Your task to perform on an android device: turn pop-ups on in chrome Image 0: 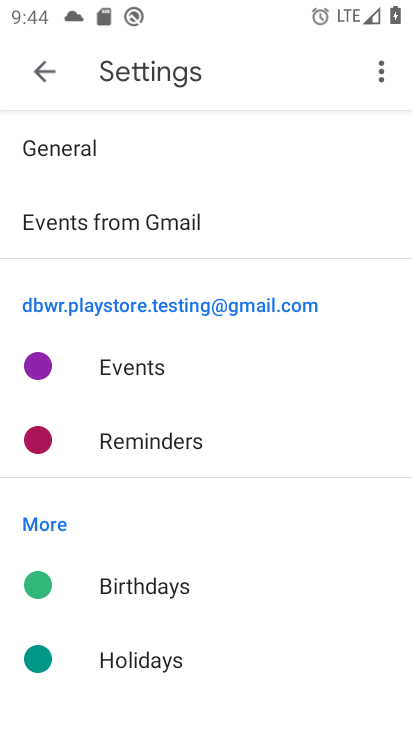
Step 0: press home button
Your task to perform on an android device: turn pop-ups on in chrome Image 1: 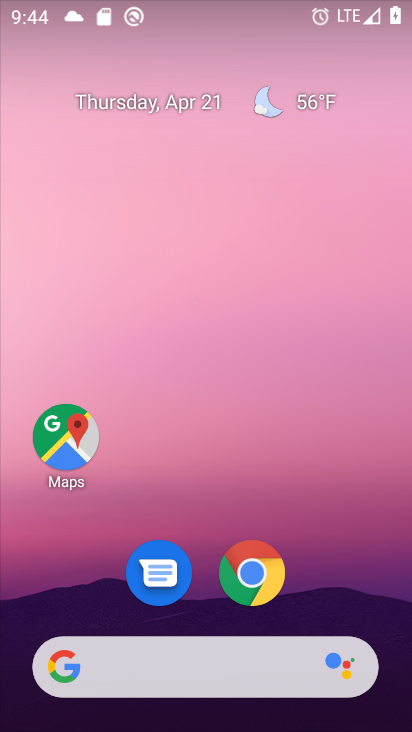
Step 1: click (250, 570)
Your task to perform on an android device: turn pop-ups on in chrome Image 2: 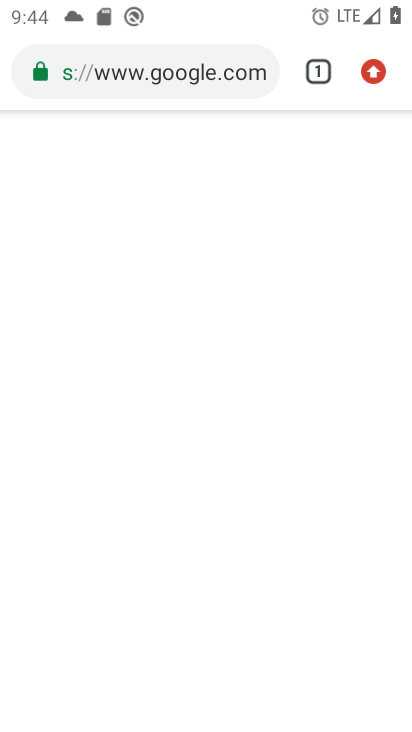
Step 2: click (378, 71)
Your task to perform on an android device: turn pop-ups on in chrome Image 3: 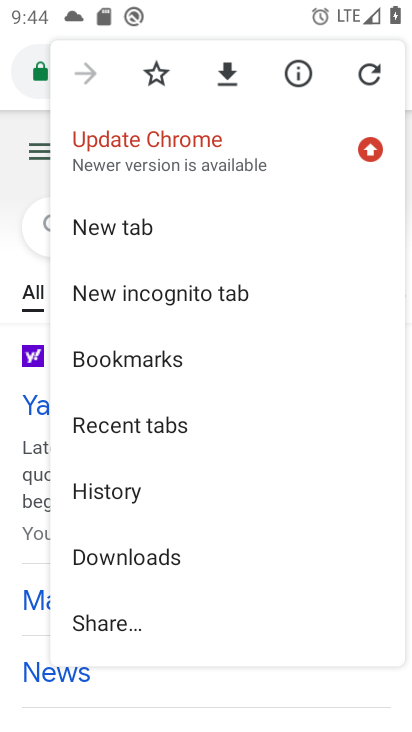
Step 3: drag from (202, 471) to (263, 349)
Your task to perform on an android device: turn pop-ups on in chrome Image 4: 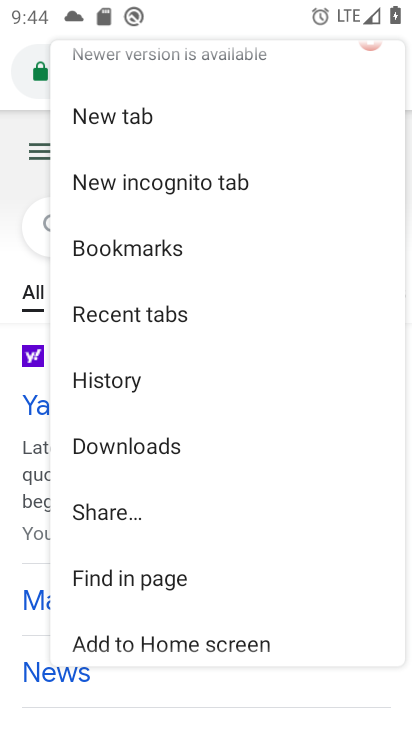
Step 4: drag from (169, 493) to (222, 377)
Your task to perform on an android device: turn pop-ups on in chrome Image 5: 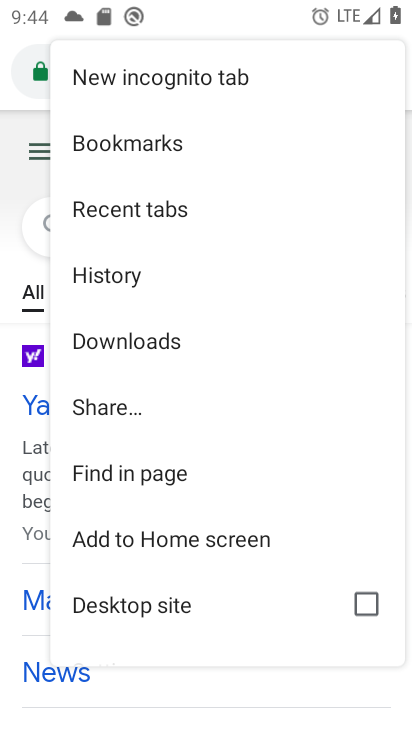
Step 5: drag from (194, 506) to (228, 379)
Your task to perform on an android device: turn pop-ups on in chrome Image 6: 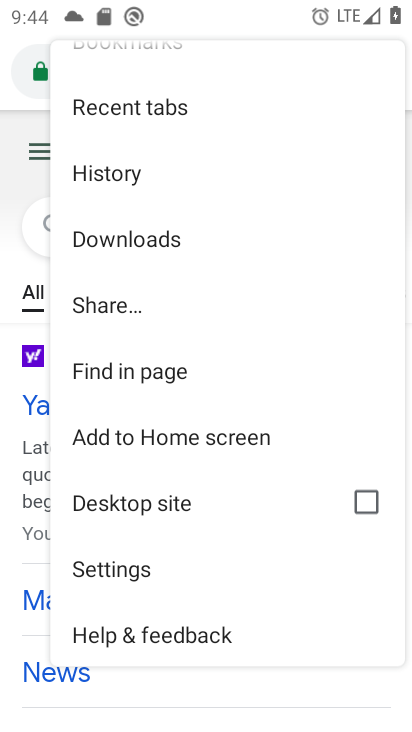
Step 6: drag from (164, 480) to (226, 363)
Your task to perform on an android device: turn pop-ups on in chrome Image 7: 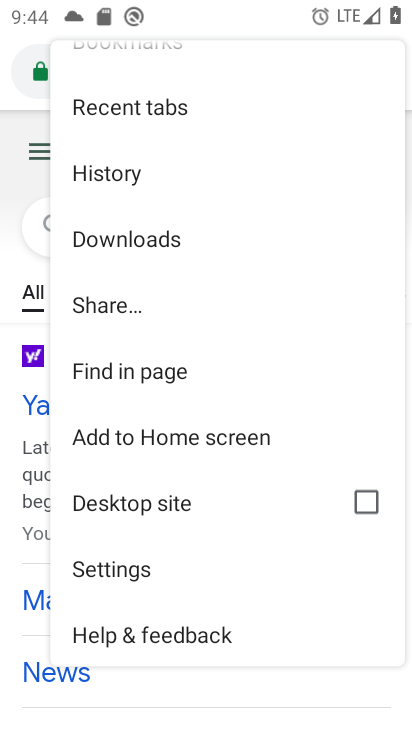
Step 7: click (125, 571)
Your task to perform on an android device: turn pop-ups on in chrome Image 8: 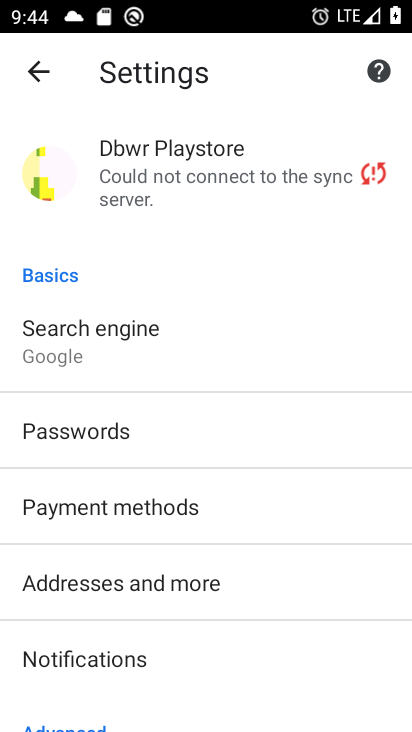
Step 8: drag from (159, 486) to (224, 391)
Your task to perform on an android device: turn pop-ups on in chrome Image 9: 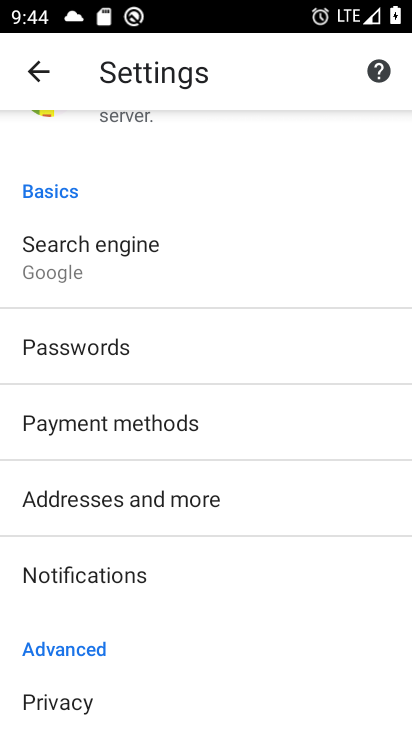
Step 9: drag from (167, 480) to (248, 375)
Your task to perform on an android device: turn pop-ups on in chrome Image 10: 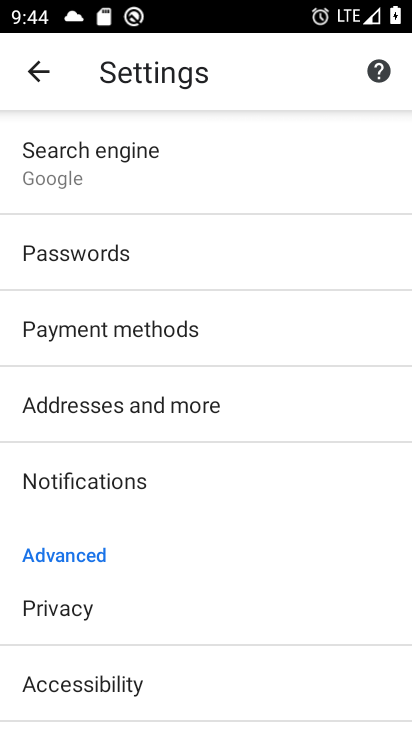
Step 10: drag from (175, 463) to (274, 309)
Your task to perform on an android device: turn pop-ups on in chrome Image 11: 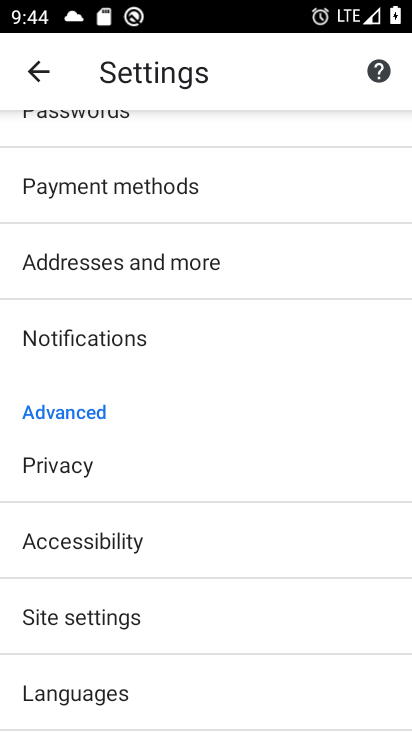
Step 11: drag from (144, 424) to (201, 303)
Your task to perform on an android device: turn pop-ups on in chrome Image 12: 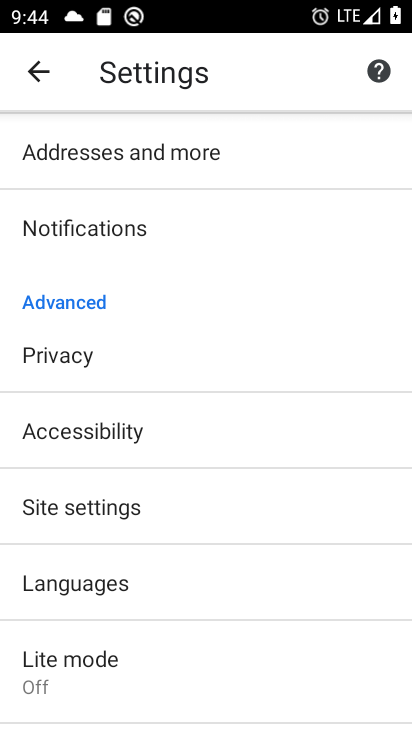
Step 12: click (92, 503)
Your task to perform on an android device: turn pop-ups on in chrome Image 13: 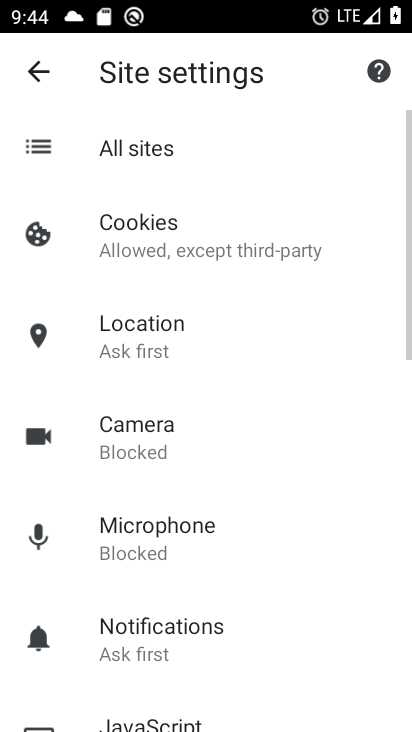
Step 13: drag from (189, 499) to (246, 435)
Your task to perform on an android device: turn pop-ups on in chrome Image 14: 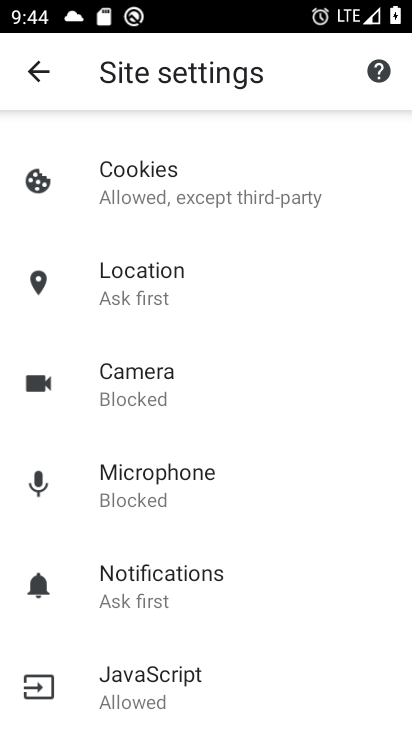
Step 14: drag from (179, 599) to (269, 497)
Your task to perform on an android device: turn pop-ups on in chrome Image 15: 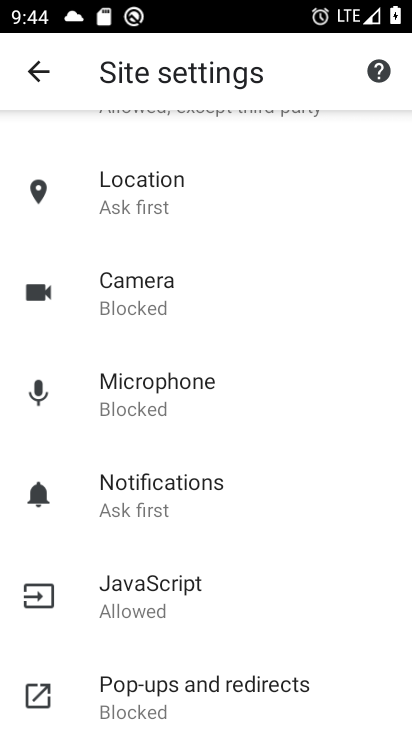
Step 15: drag from (180, 613) to (271, 478)
Your task to perform on an android device: turn pop-ups on in chrome Image 16: 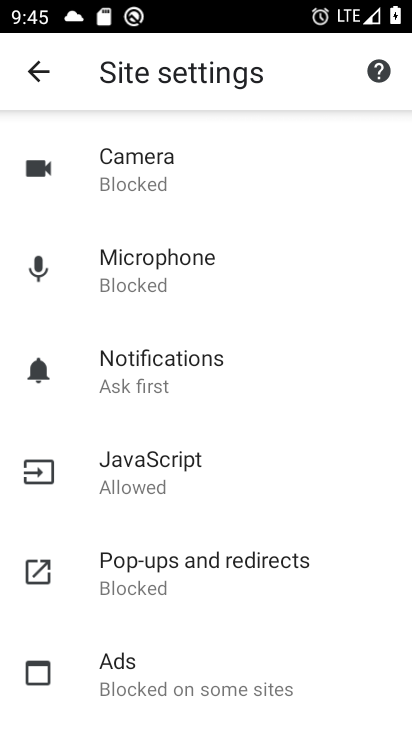
Step 16: click (192, 557)
Your task to perform on an android device: turn pop-ups on in chrome Image 17: 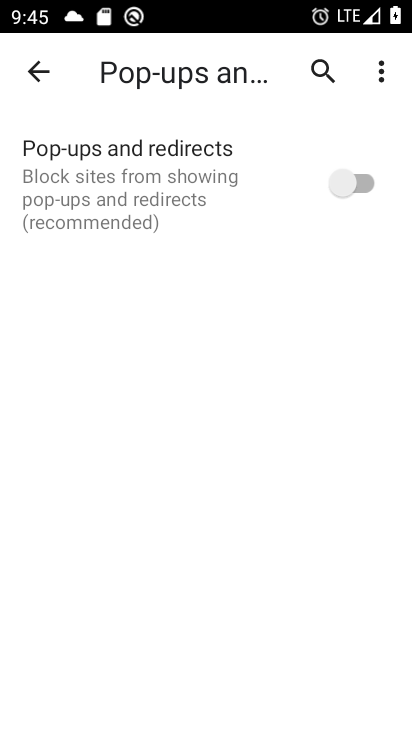
Step 17: click (351, 179)
Your task to perform on an android device: turn pop-ups on in chrome Image 18: 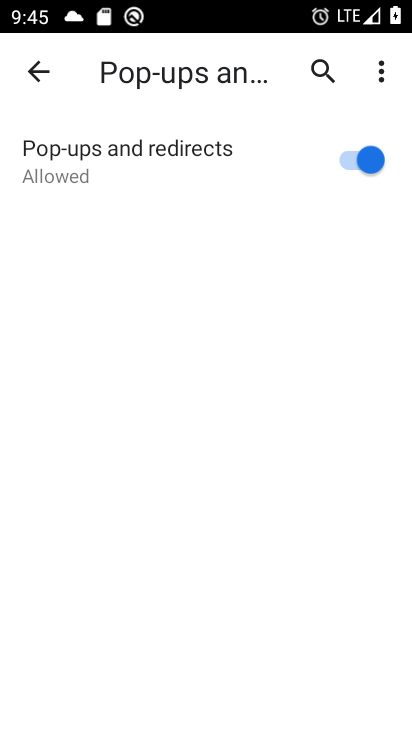
Step 18: task complete